Your task to perform on an android device: turn off smart reply in the gmail app Image 0: 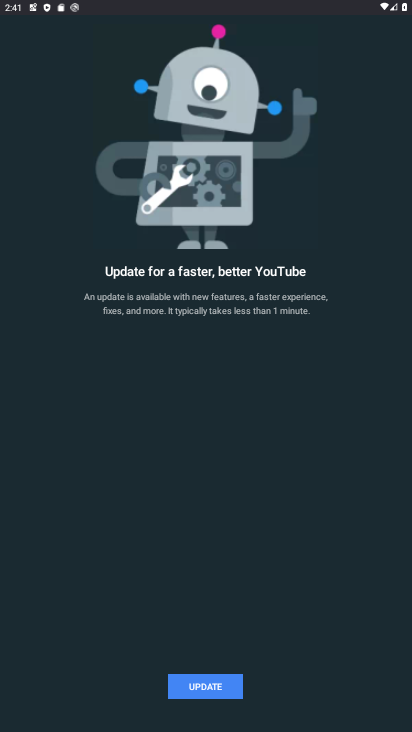
Step 0: press home button
Your task to perform on an android device: turn off smart reply in the gmail app Image 1: 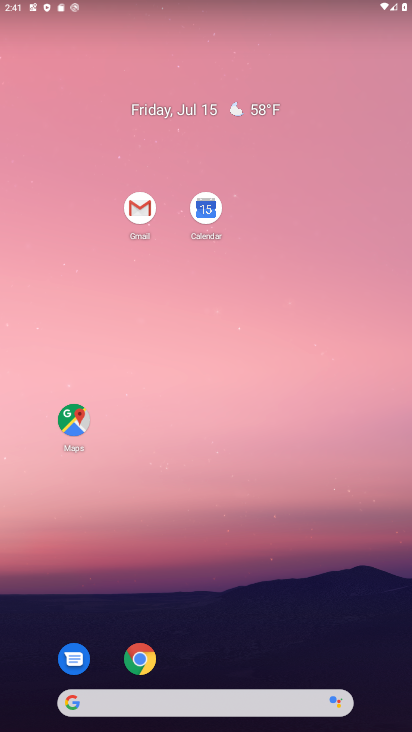
Step 1: drag from (242, 644) to (217, 261)
Your task to perform on an android device: turn off smart reply in the gmail app Image 2: 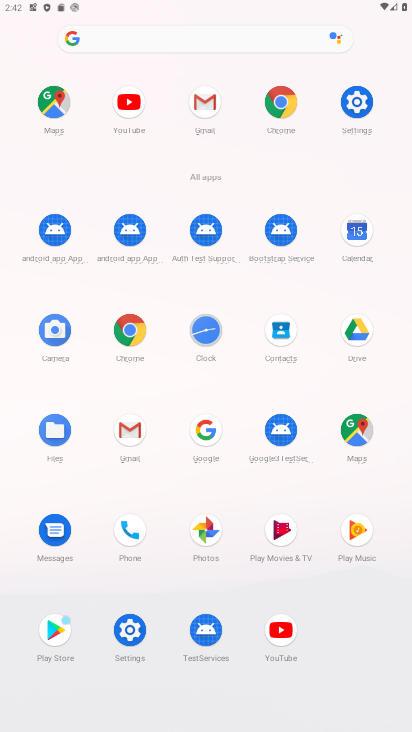
Step 2: click (131, 421)
Your task to perform on an android device: turn off smart reply in the gmail app Image 3: 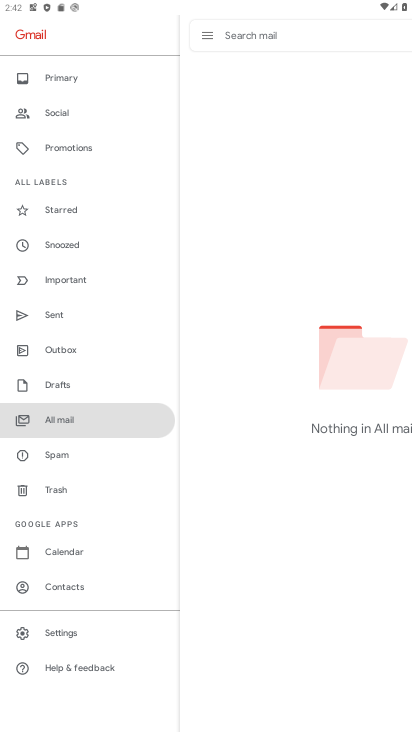
Step 3: click (102, 633)
Your task to perform on an android device: turn off smart reply in the gmail app Image 4: 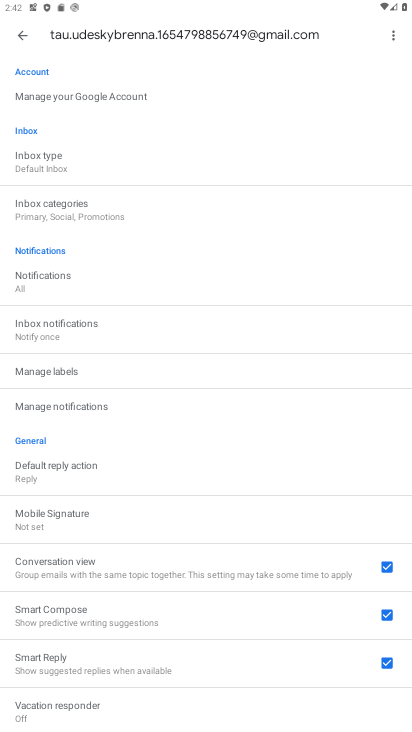
Step 4: task complete